Your task to perform on an android device: Open Reddit.com Image 0: 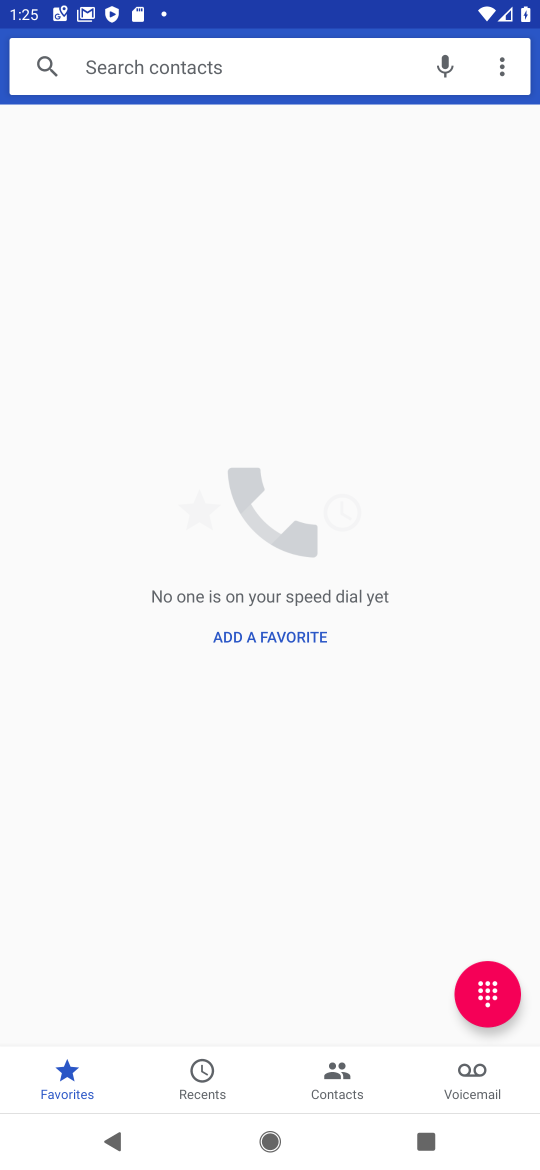
Step 0: press home button
Your task to perform on an android device: Open Reddit.com Image 1: 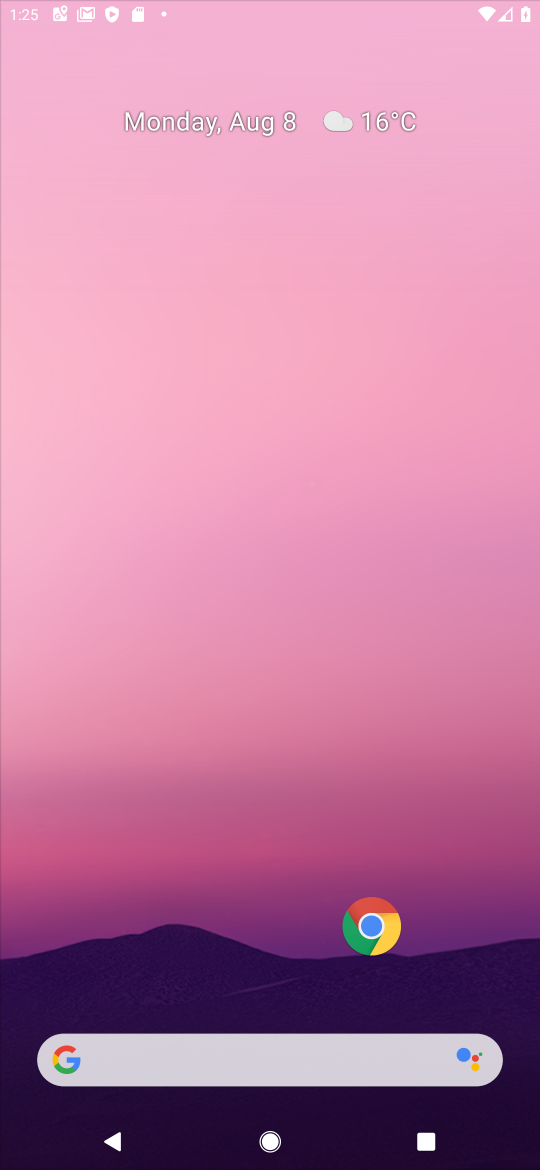
Step 1: drag from (251, 1004) to (255, 200)
Your task to perform on an android device: Open Reddit.com Image 2: 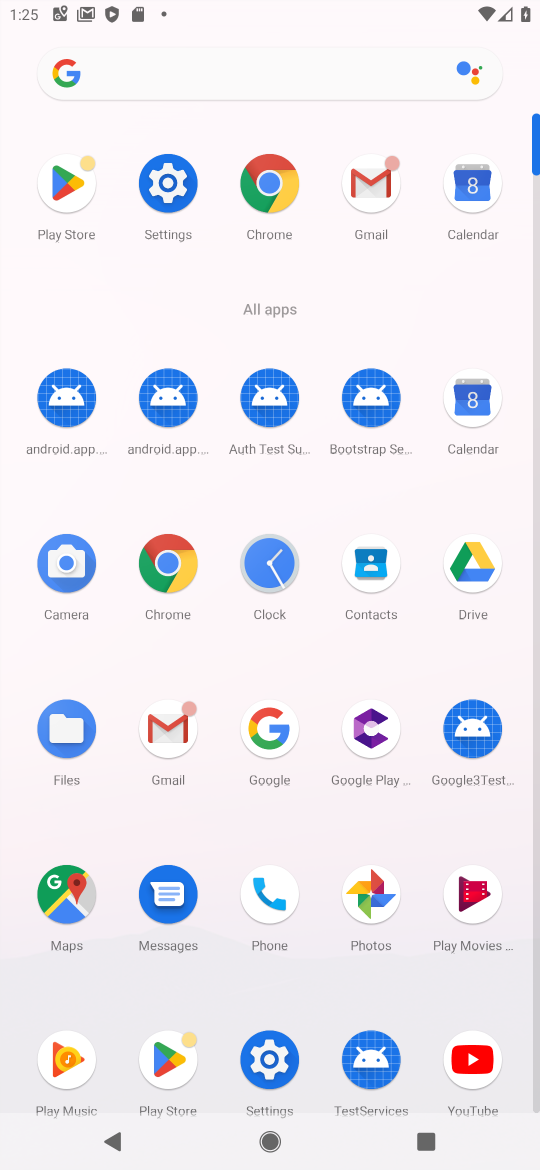
Step 2: click (279, 185)
Your task to perform on an android device: Open Reddit.com Image 3: 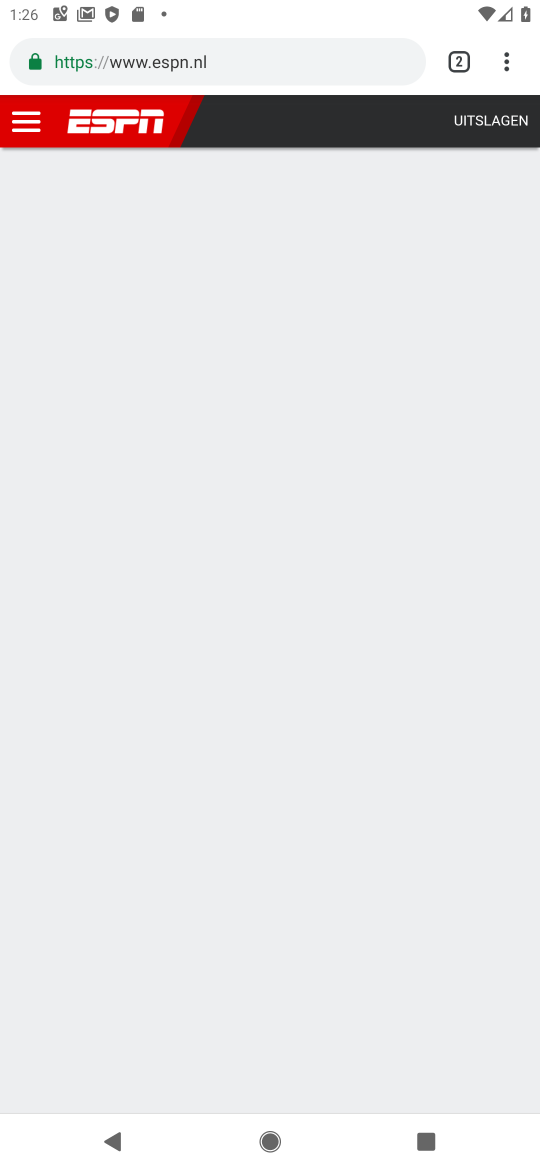
Step 3: click (520, 55)
Your task to perform on an android device: Open Reddit.com Image 4: 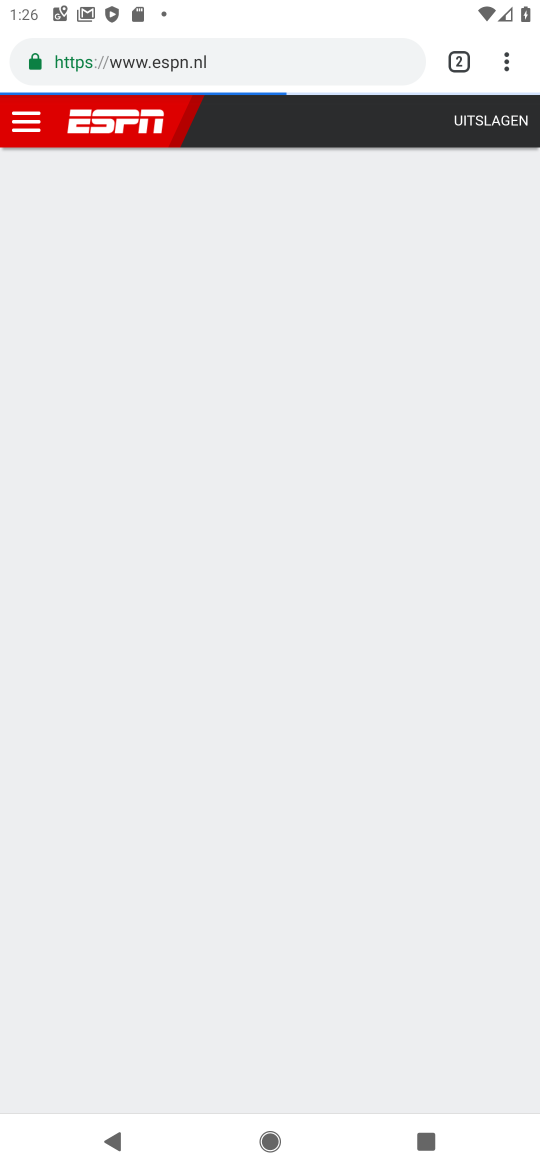
Step 4: click (508, 46)
Your task to perform on an android device: Open Reddit.com Image 5: 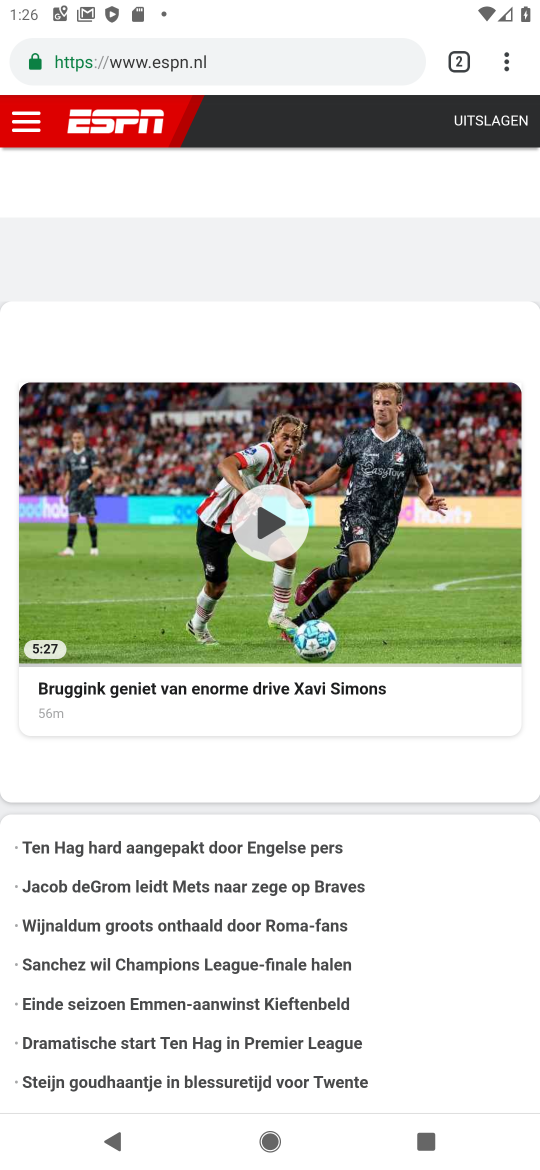
Step 5: click (526, 53)
Your task to perform on an android device: Open Reddit.com Image 6: 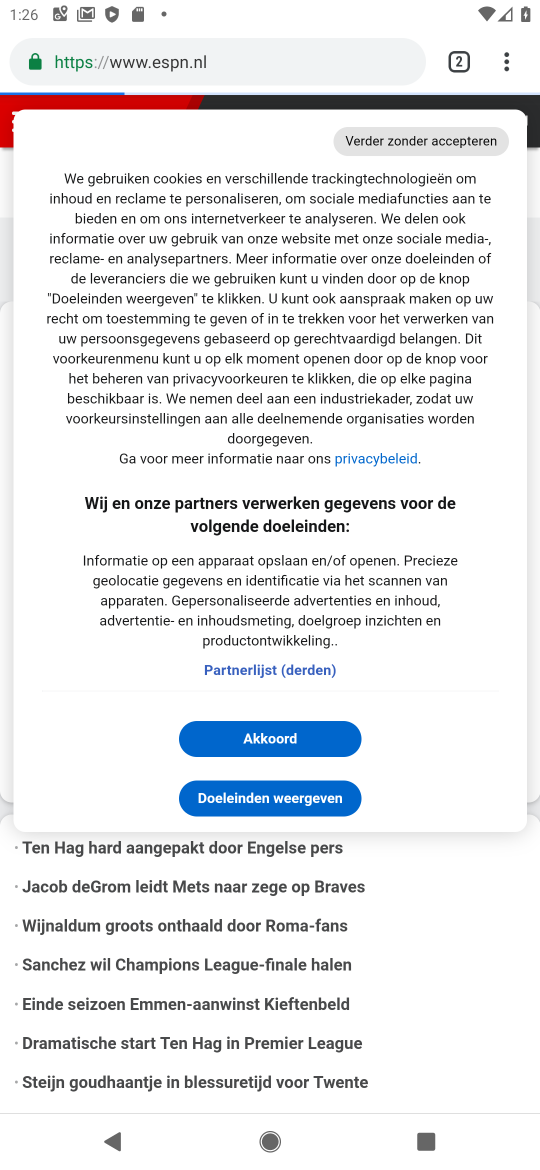
Step 6: click (508, 56)
Your task to perform on an android device: Open Reddit.com Image 7: 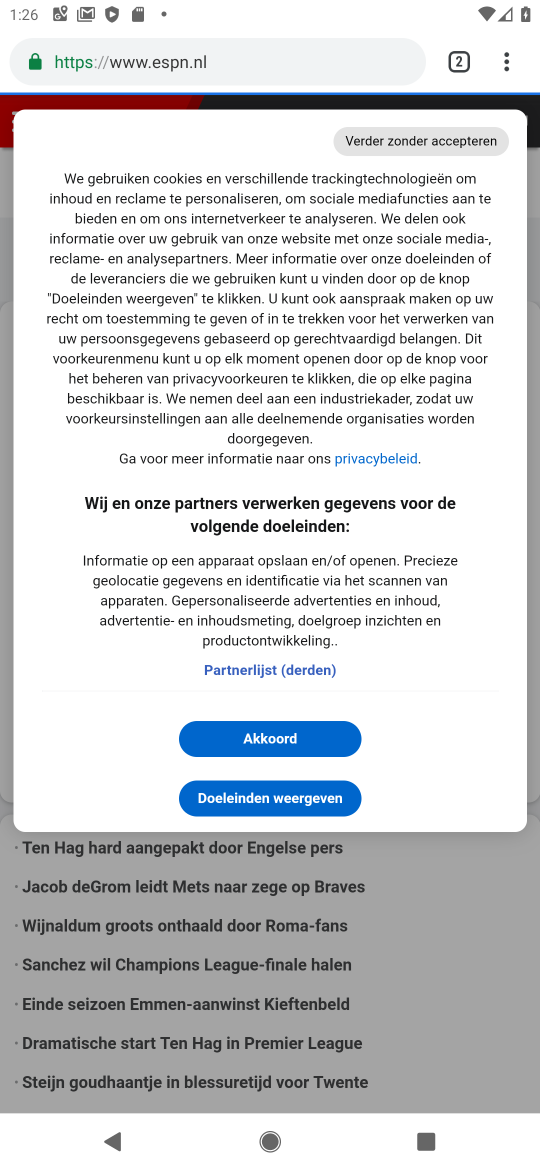
Step 7: click (508, 56)
Your task to perform on an android device: Open Reddit.com Image 8: 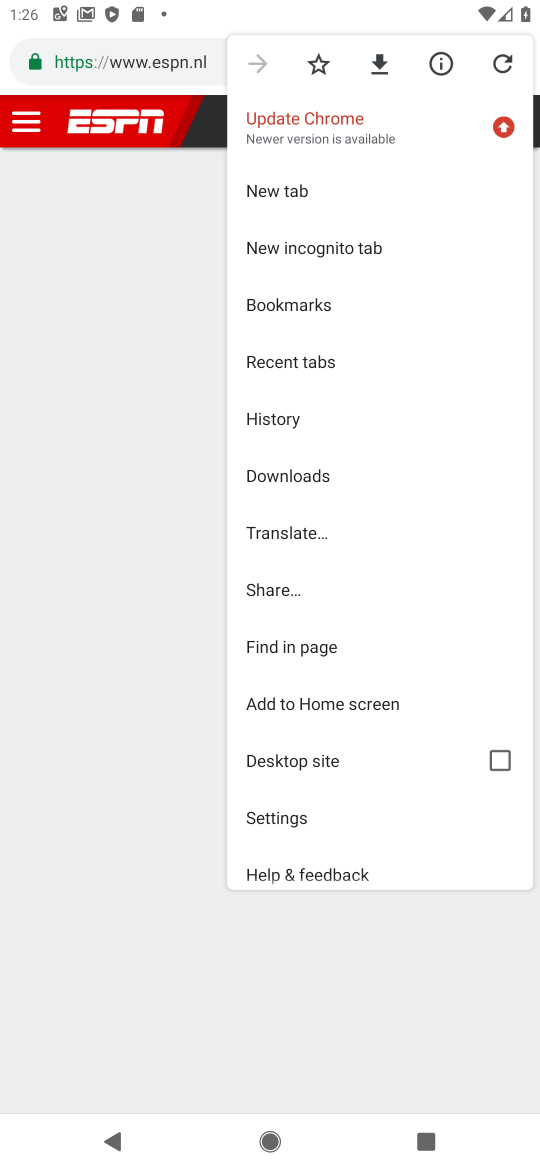
Step 8: click (285, 188)
Your task to perform on an android device: Open Reddit.com Image 9: 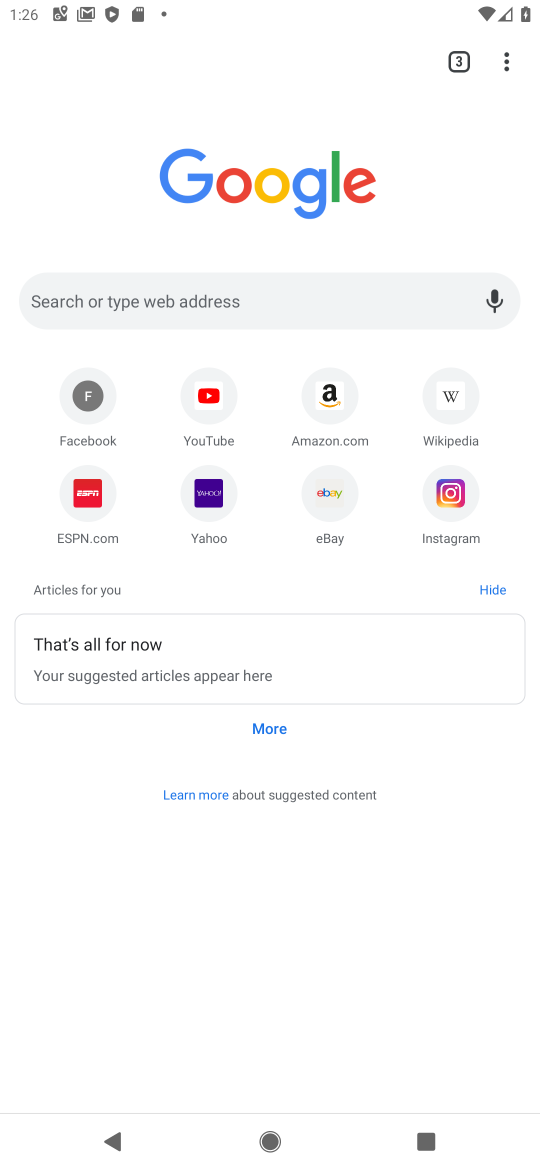
Step 9: click (312, 287)
Your task to perform on an android device: Open Reddit.com Image 10: 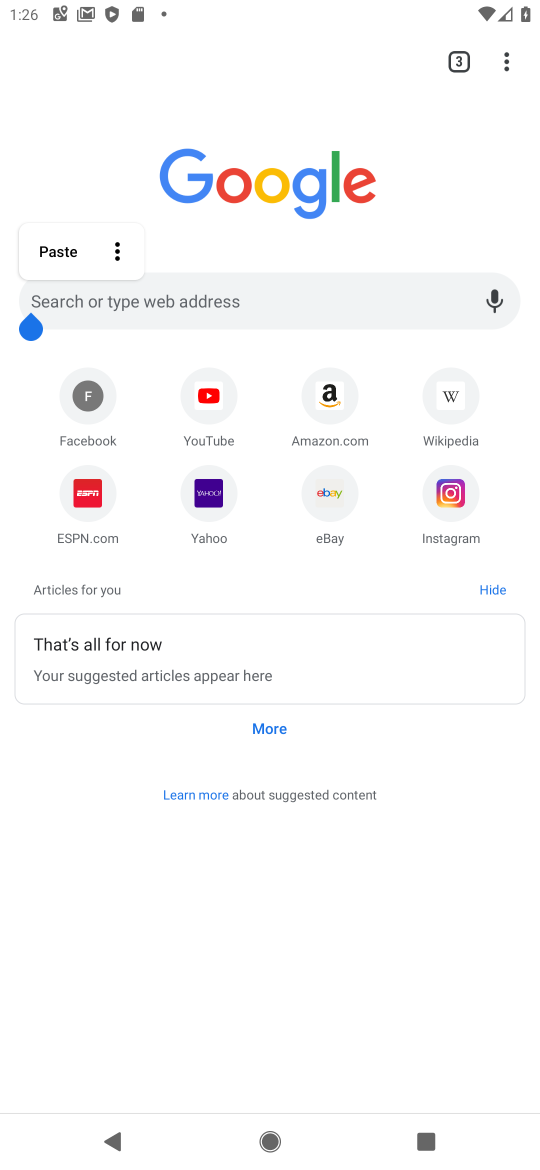
Step 10: type " Reddit.com "
Your task to perform on an android device: Open Reddit.com Image 11: 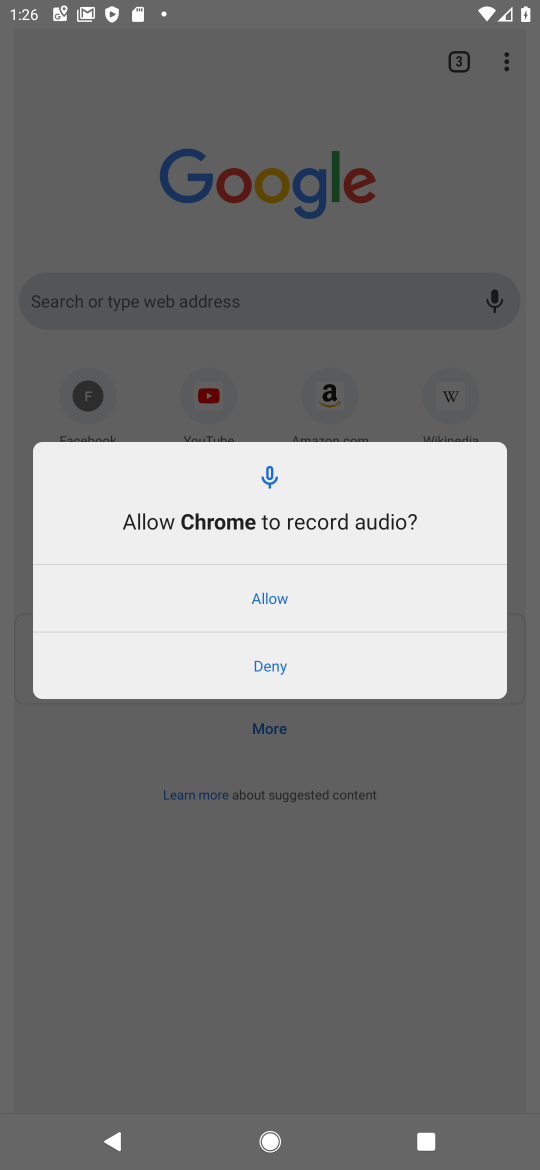
Step 11: click (303, 601)
Your task to perform on an android device: Open Reddit.com Image 12: 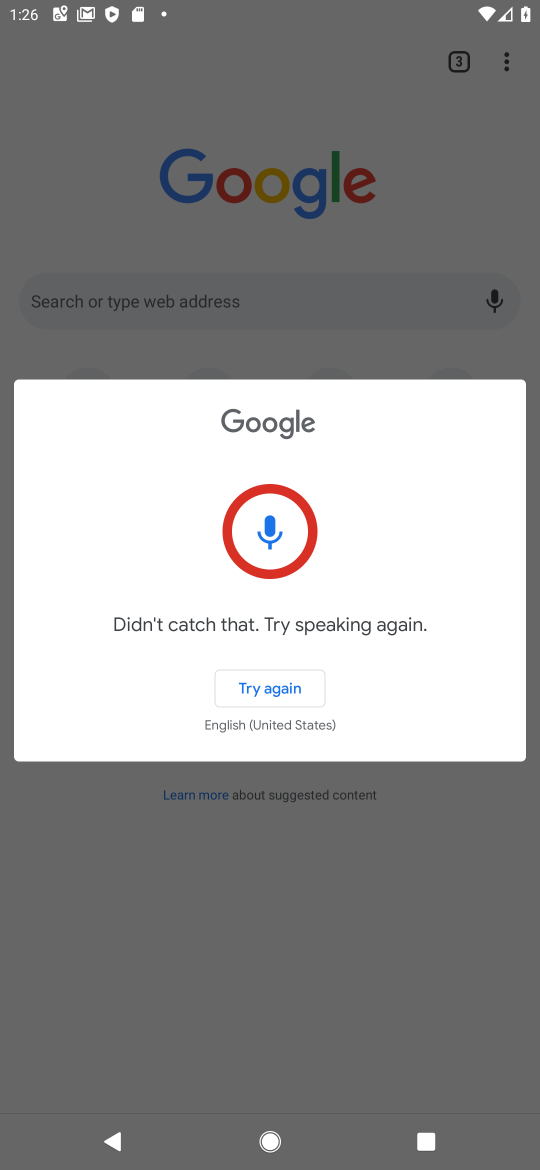
Step 12: click (411, 217)
Your task to perform on an android device: Open Reddit.com Image 13: 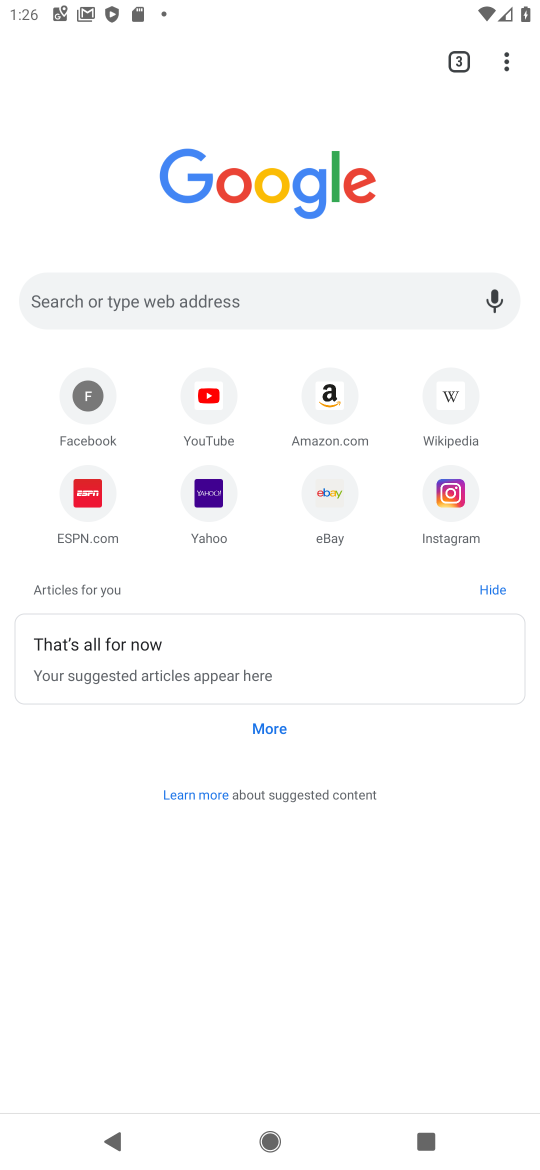
Step 13: click (278, 282)
Your task to perform on an android device: Open Reddit.com Image 14: 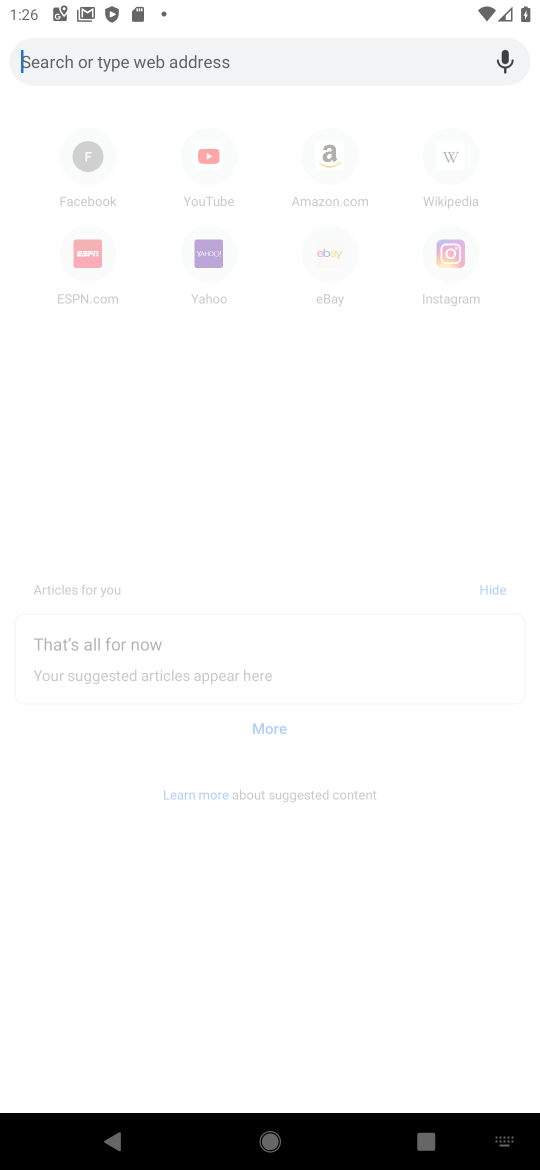
Step 14: type " Reddit.com "
Your task to perform on an android device: Open Reddit.com Image 15: 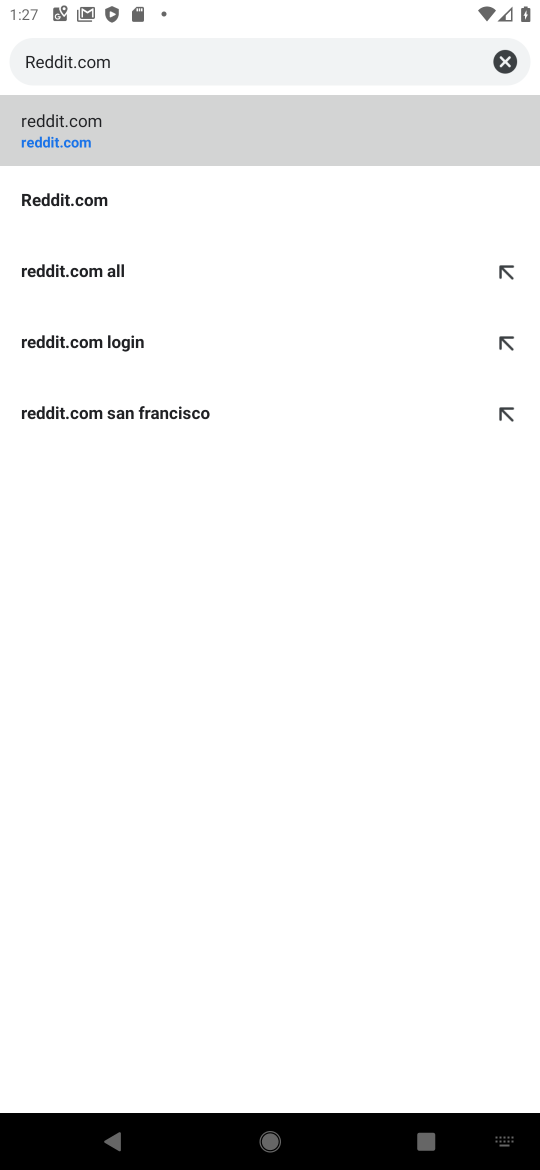
Step 15: click (213, 142)
Your task to perform on an android device: Open Reddit.com Image 16: 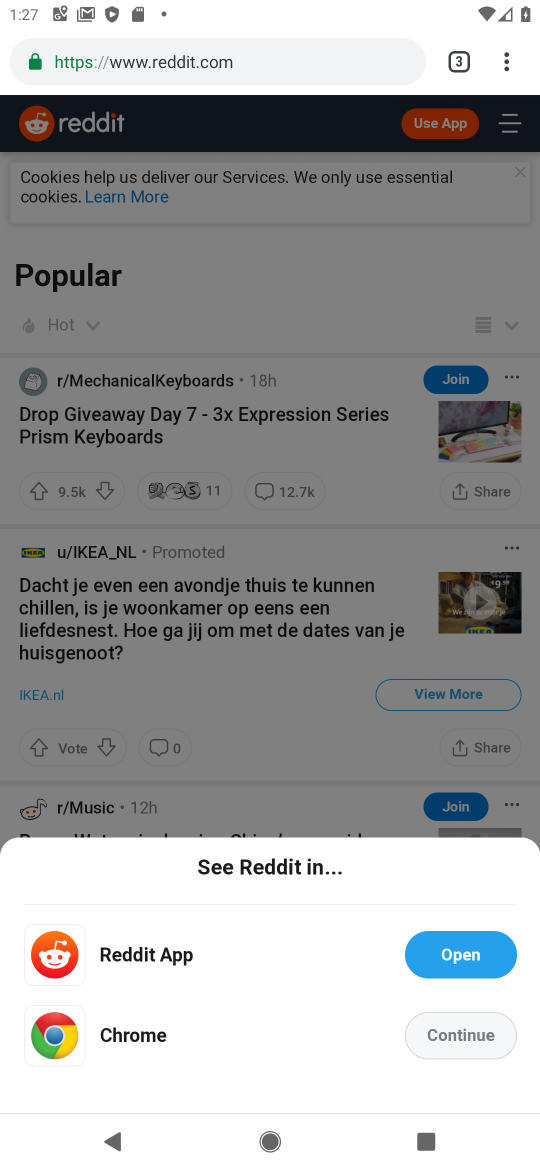
Step 16: task complete